Your task to perform on an android device: Open Wikipedia Image 0: 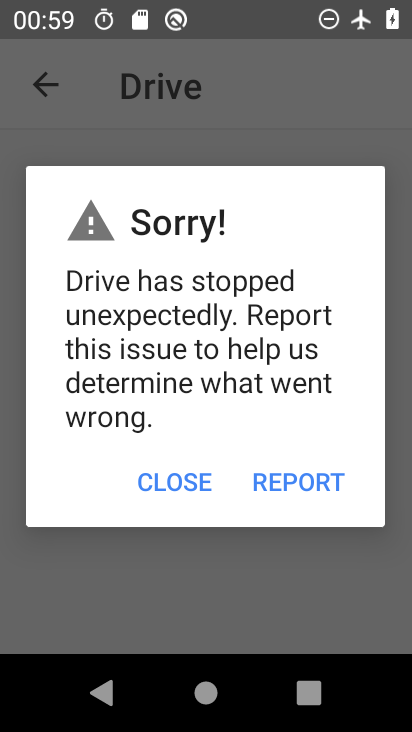
Step 0: press home button
Your task to perform on an android device: Open Wikipedia Image 1: 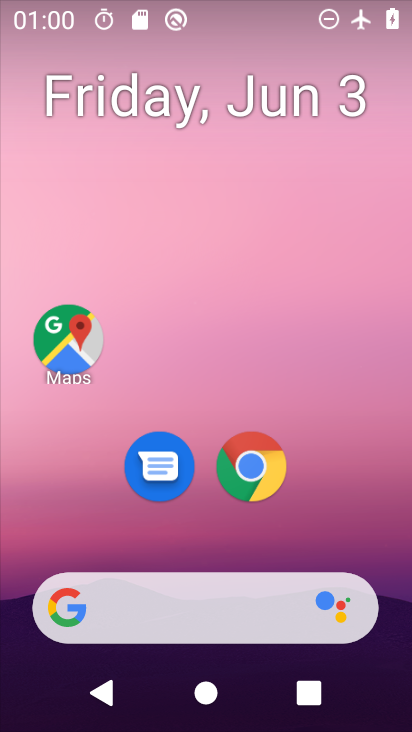
Step 1: click (256, 462)
Your task to perform on an android device: Open Wikipedia Image 2: 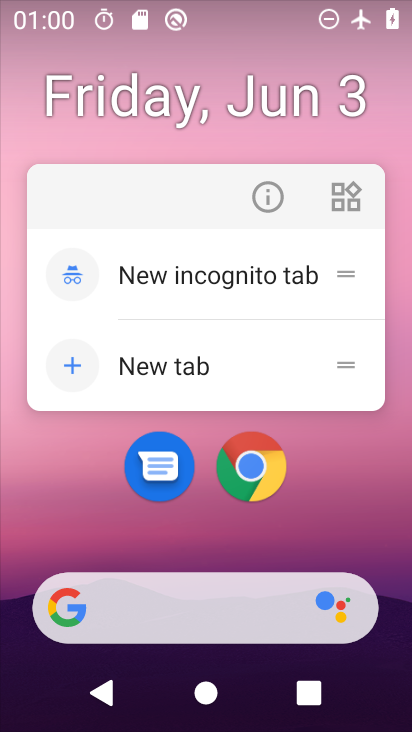
Step 2: click (256, 462)
Your task to perform on an android device: Open Wikipedia Image 3: 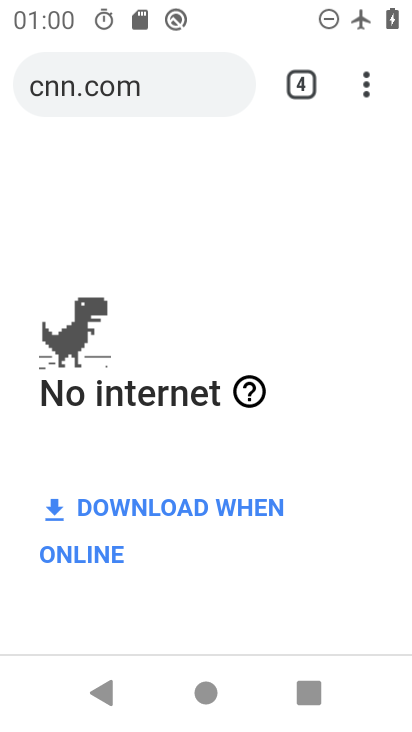
Step 3: click (289, 82)
Your task to perform on an android device: Open Wikipedia Image 4: 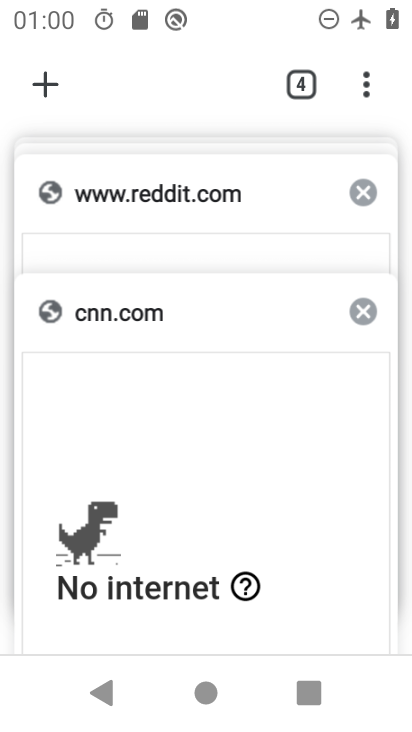
Step 4: task complete